Your task to perform on an android device: open wifi settings Image 0: 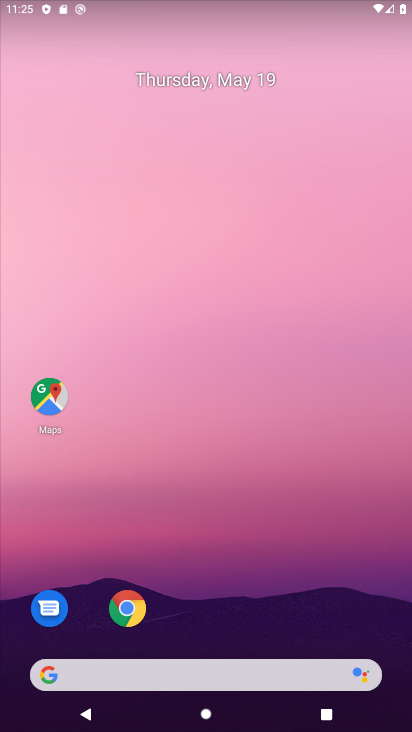
Step 0: drag from (366, 617) to (355, 86)
Your task to perform on an android device: open wifi settings Image 1: 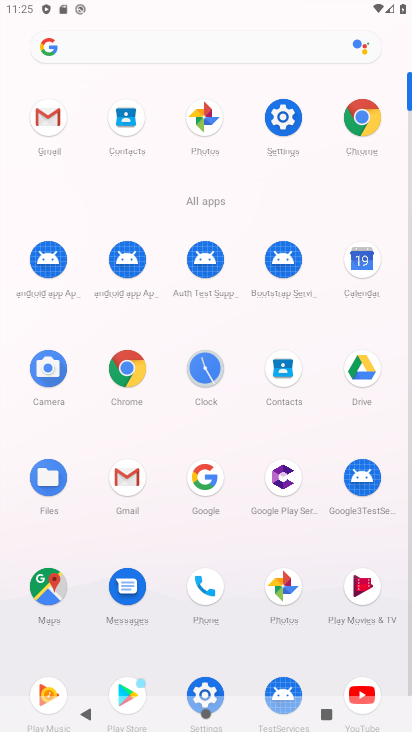
Step 1: click (292, 160)
Your task to perform on an android device: open wifi settings Image 2: 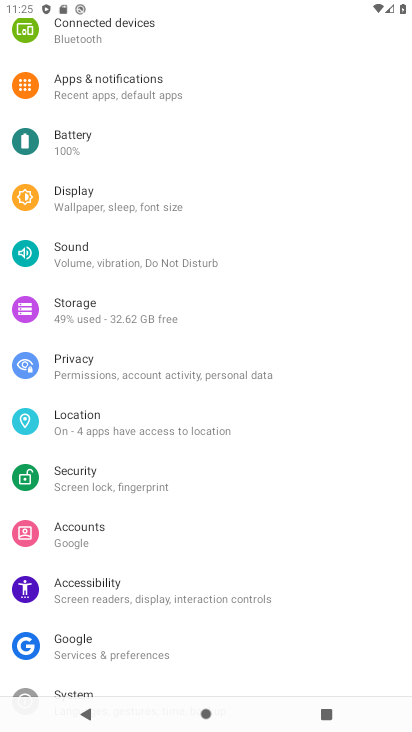
Step 2: drag from (351, 474) to (347, 391)
Your task to perform on an android device: open wifi settings Image 3: 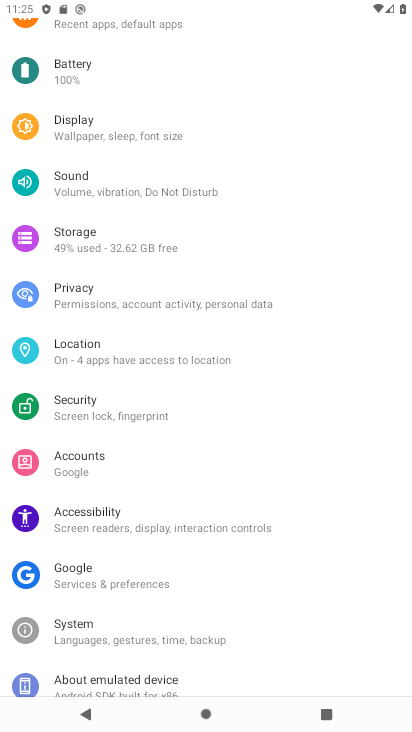
Step 3: drag from (345, 541) to (340, 444)
Your task to perform on an android device: open wifi settings Image 4: 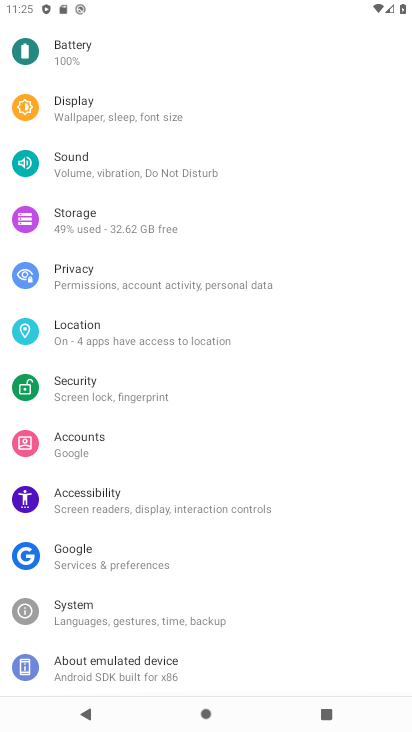
Step 4: drag from (340, 561) to (333, 463)
Your task to perform on an android device: open wifi settings Image 5: 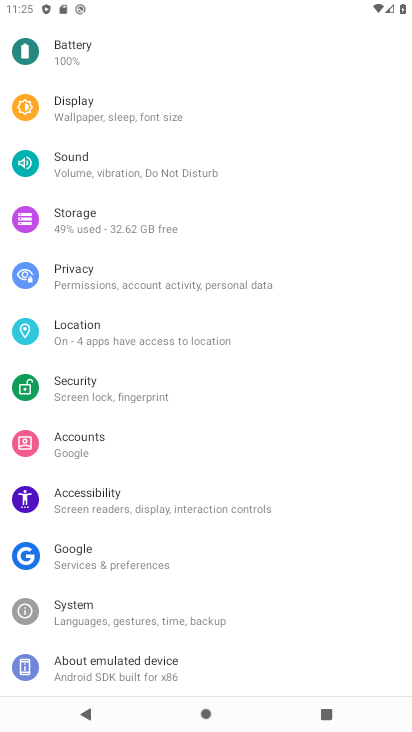
Step 5: drag from (330, 581) to (326, 429)
Your task to perform on an android device: open wifi settings Image 6: 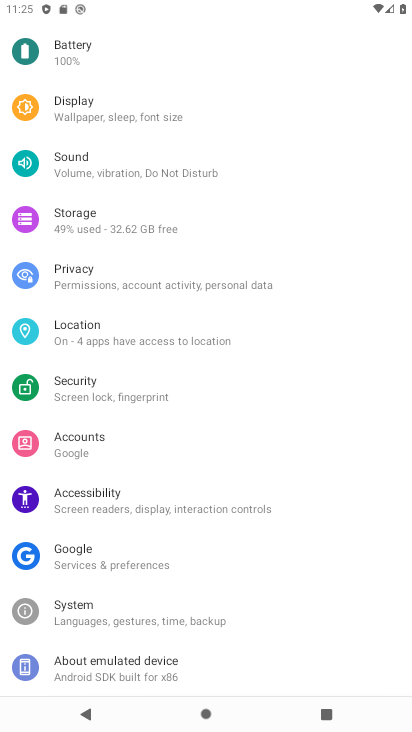
Step 6: drag from (312, 612) to (317, 438)
Your task to perform on an android device: open wifi settings Image 7: 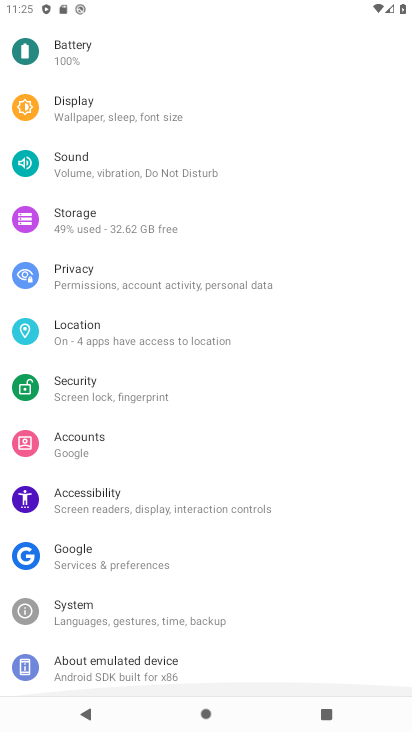
Step 7: drag from (319, 348) to (323, 480)
Your task to perform on an android device: open wifi settings Image 8: 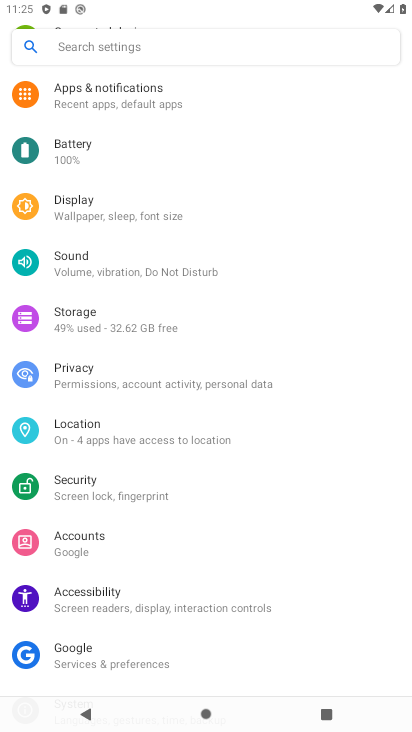
Step 8: drag from (325, 335) to (344, 457)
Your task to perform on an android device: open wifi settings Image 9: 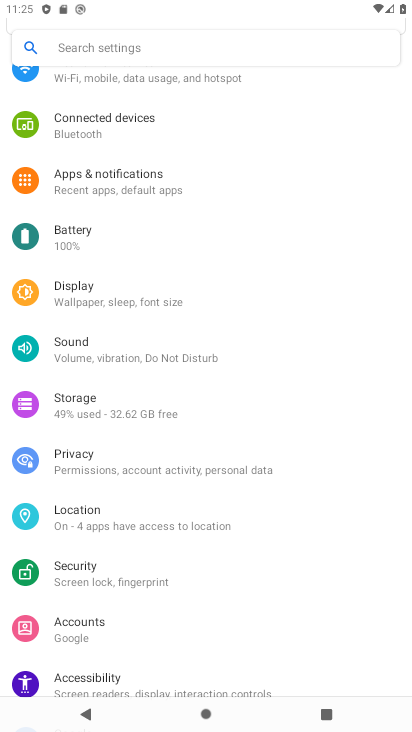
Step 9: drag from (332, 347) to (345, 442)
Your task to perform on an android device: open wifi settings Image 10: 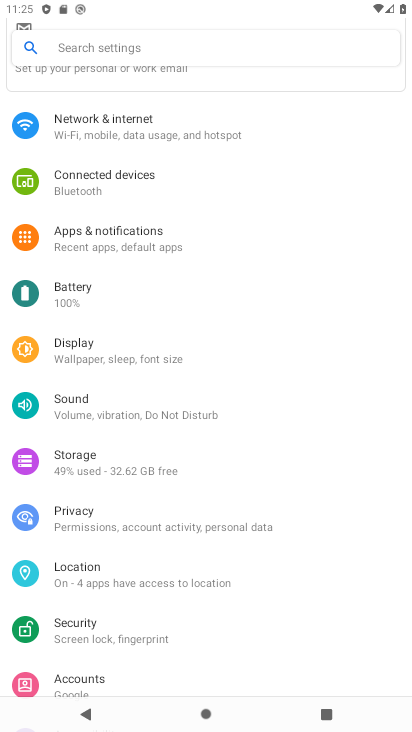
Step 10: drag from (326, 283) to (340, 423)
Your task to perform on an android device: open wifi settings Image 11: 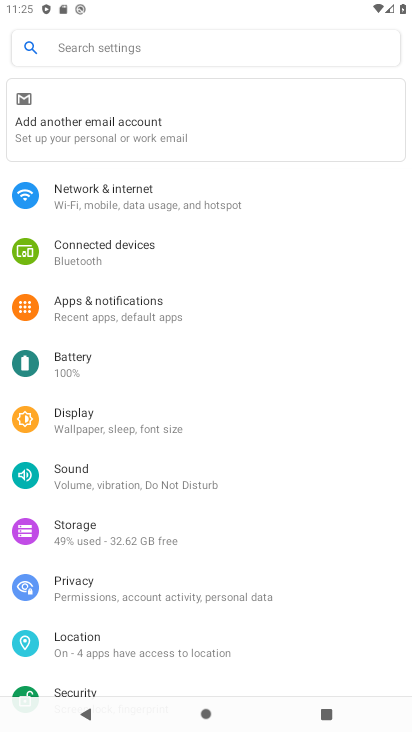
Step 11: drag from (320, 276) to (325, 395)
Your task to perform on an android device: open wifi settings Image 12: 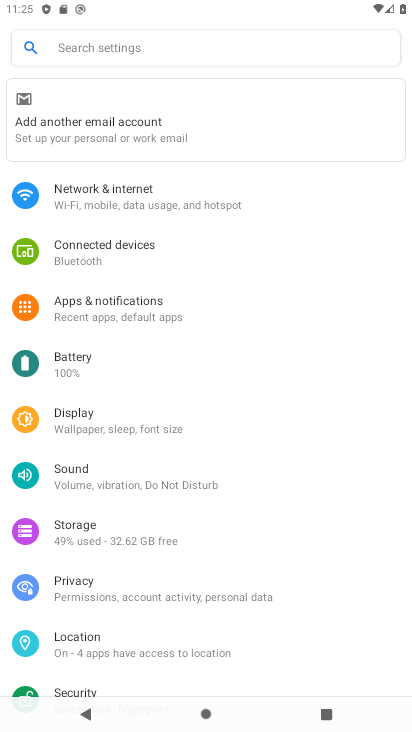
Step 12: click (219, 209)
Your task to perform on an android device: open wifi settings Image 13: 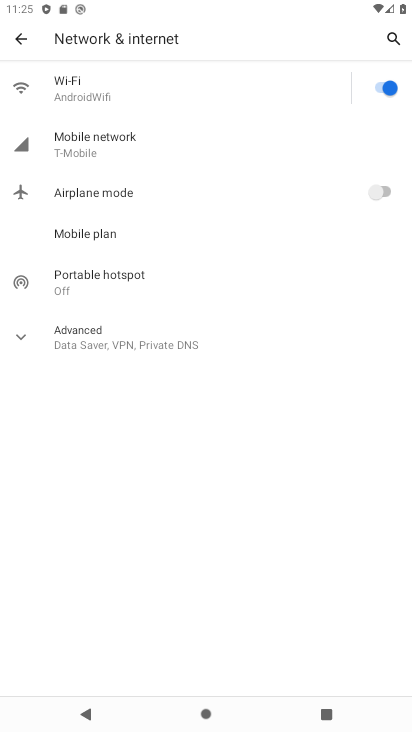
Step 13: click (150, 97)
Your task to perform on an android device: open wifi settings Image 14: 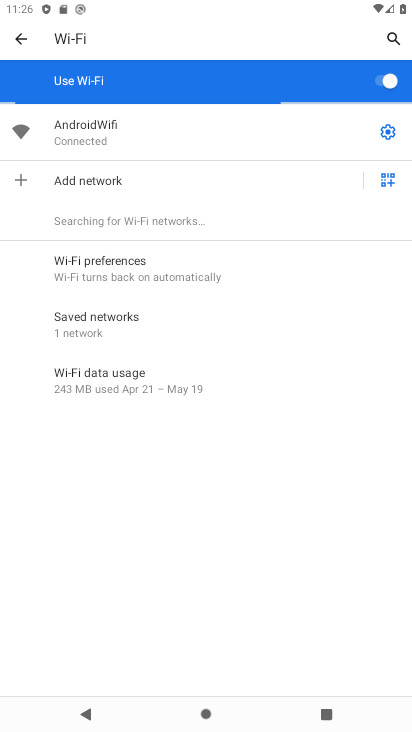
Step 14: task complete